Your task to perform on an android device: Open Android settings Image 0: 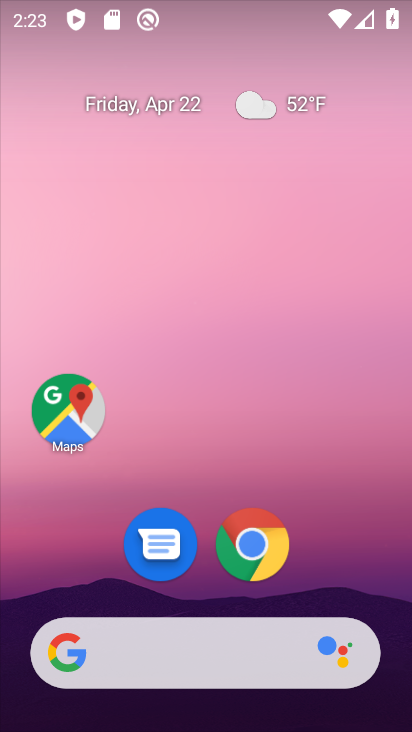
Step 0: drag from (190, 584) to (361, 115)
Your task to perform on an android device: Open Android settings Image 1: 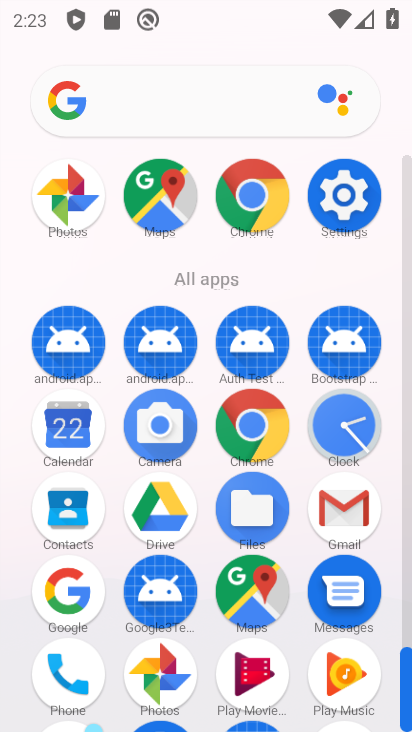
Step 1: click (322, 294)
Your task to perform on an android device: Open Android settings Image 2: 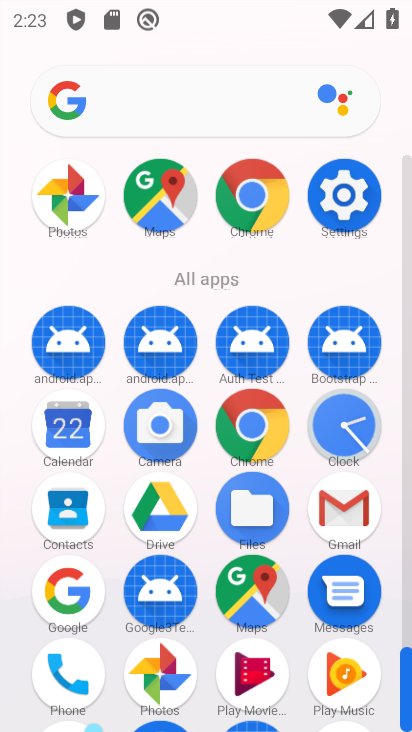
Step 2: click (326, 206)
Your task to perform on an android device: Open Android settings Image 3: 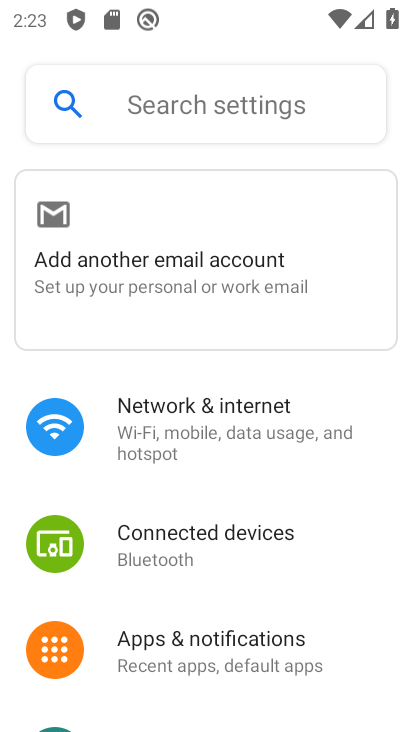
Step 3: task complete